Your task to perform on an android device: Find coffee shops on Maps Image 0: 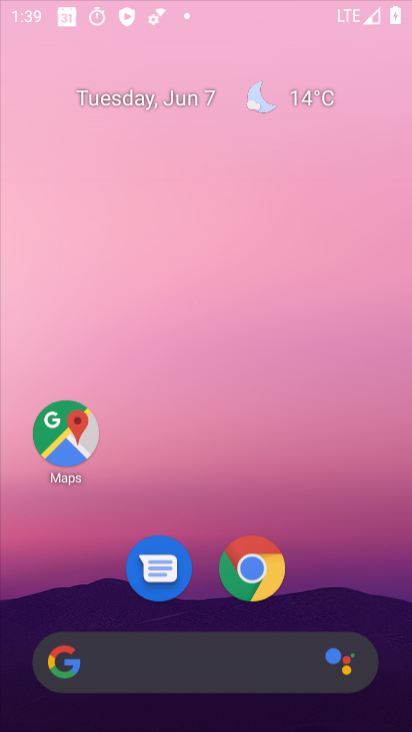
Step 0: press home button
Your task to perform on an android device: Find coffee shops on Maps Image 1: 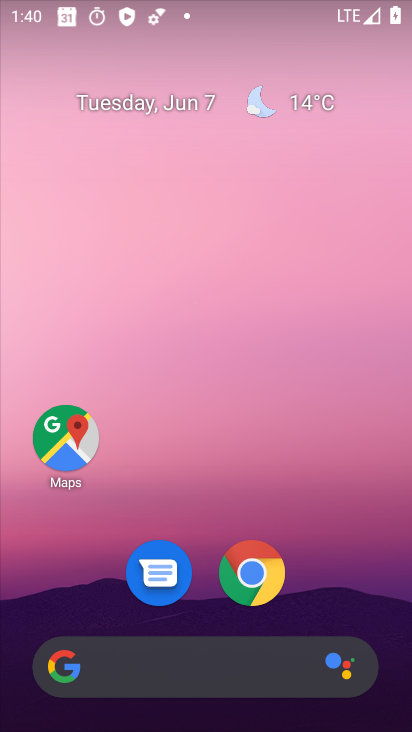
Step 1: click (68, 415)
Your task to perform on an android device: Find coffee shops on Maps Image 2: 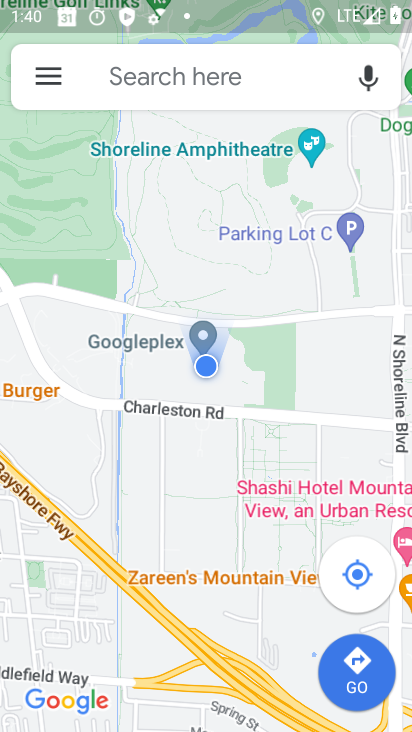
Step 2: click (144, 79)
Your task to perform on an android device: Find coffee shops on Maps Image 3: 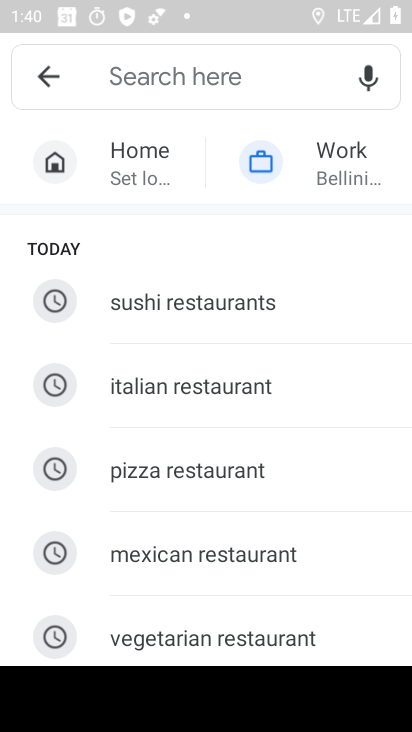
Step 3: drag from (188, 520) to (206, 97)
Your task to perform on an android device: Find coffee shops on Maps Image 4: 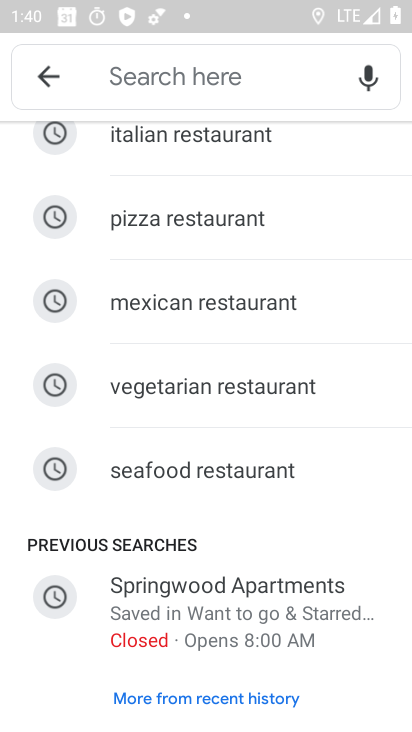
Step 4: click (126, 65)
Your task to perform on an android device: Find coffee shops on Maps Image 5: 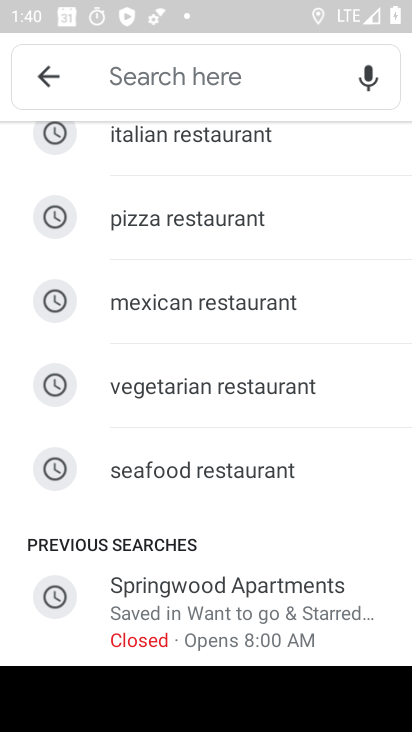
Step 5: type "coffee"
Your task to perform on an android device: Find coffee shops on Maps Image 6: 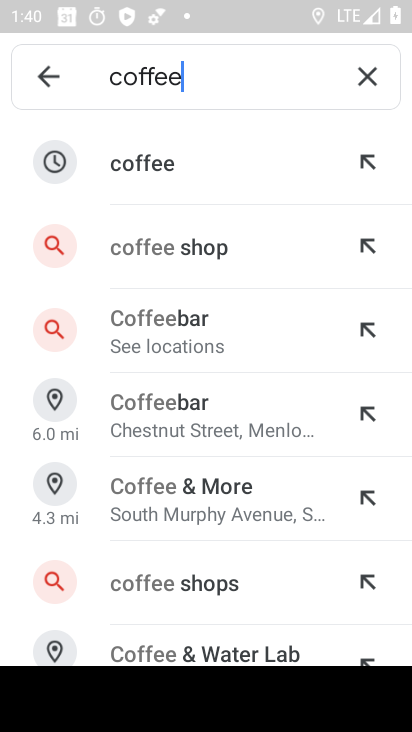
Step 6: click (173, 155)
Your task to perform on an android device: Find coffee shops on Maps Image 7: 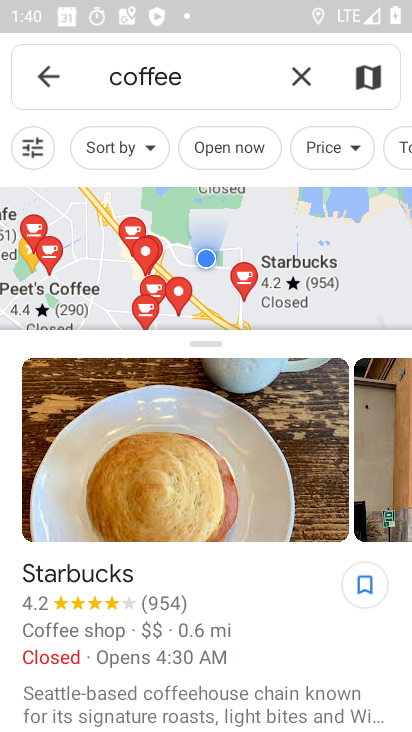
Step 7: click (237, 636)
Your task to perform on an android device: Find coffee shops on Maps Image 8: 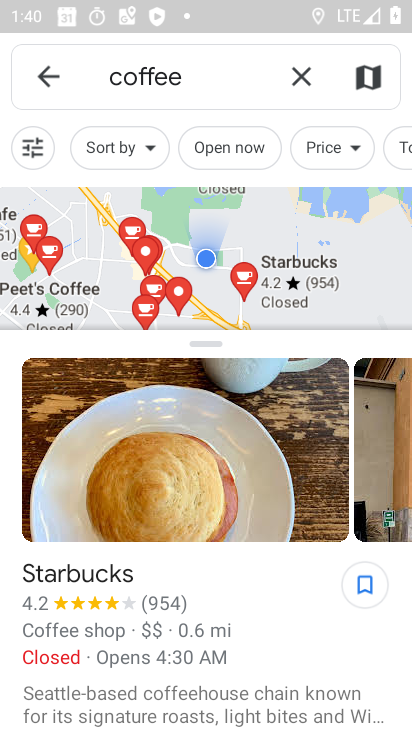
Step 8: task complete